Your task to perform on an android device: open app "YouTube Kids" Image 0: 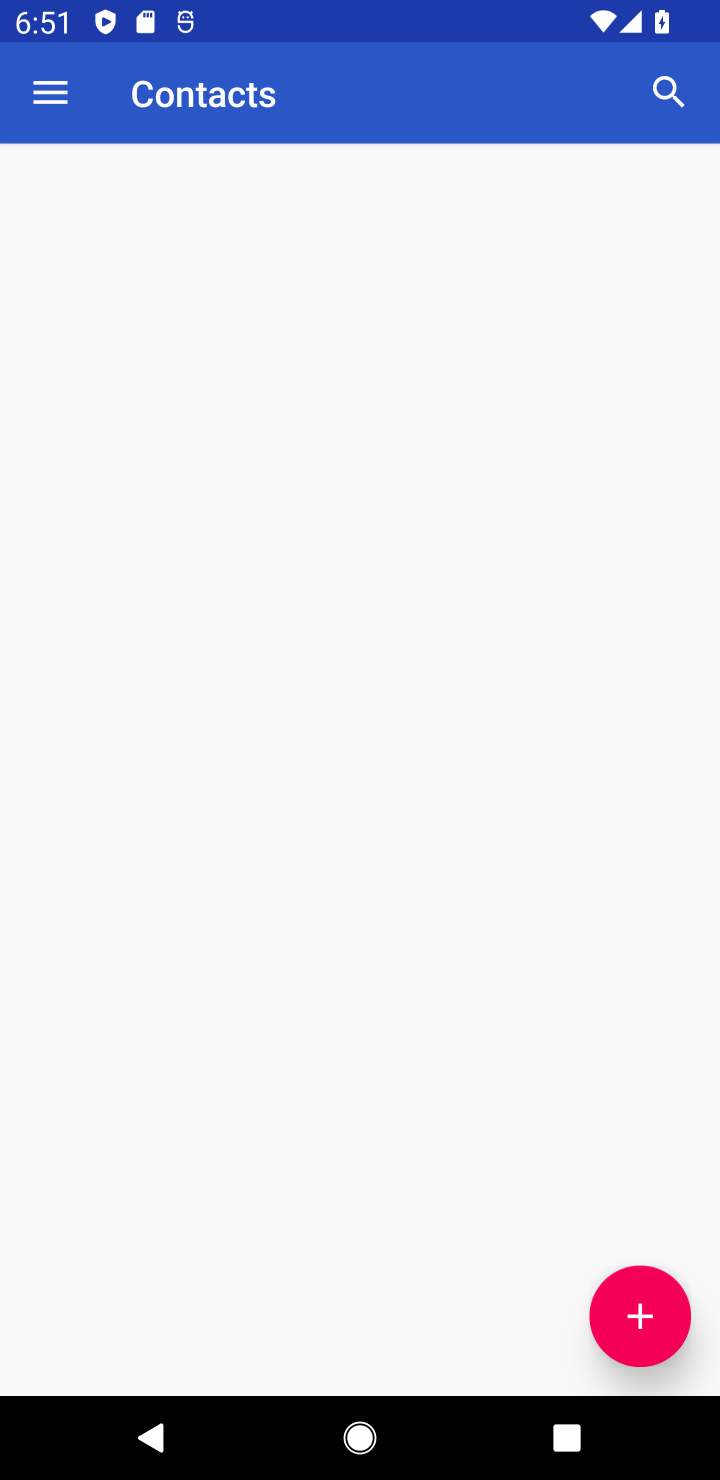
Step 0: press home button
Your task to perform on an android device: open app "YouTube Kids" Image 1: 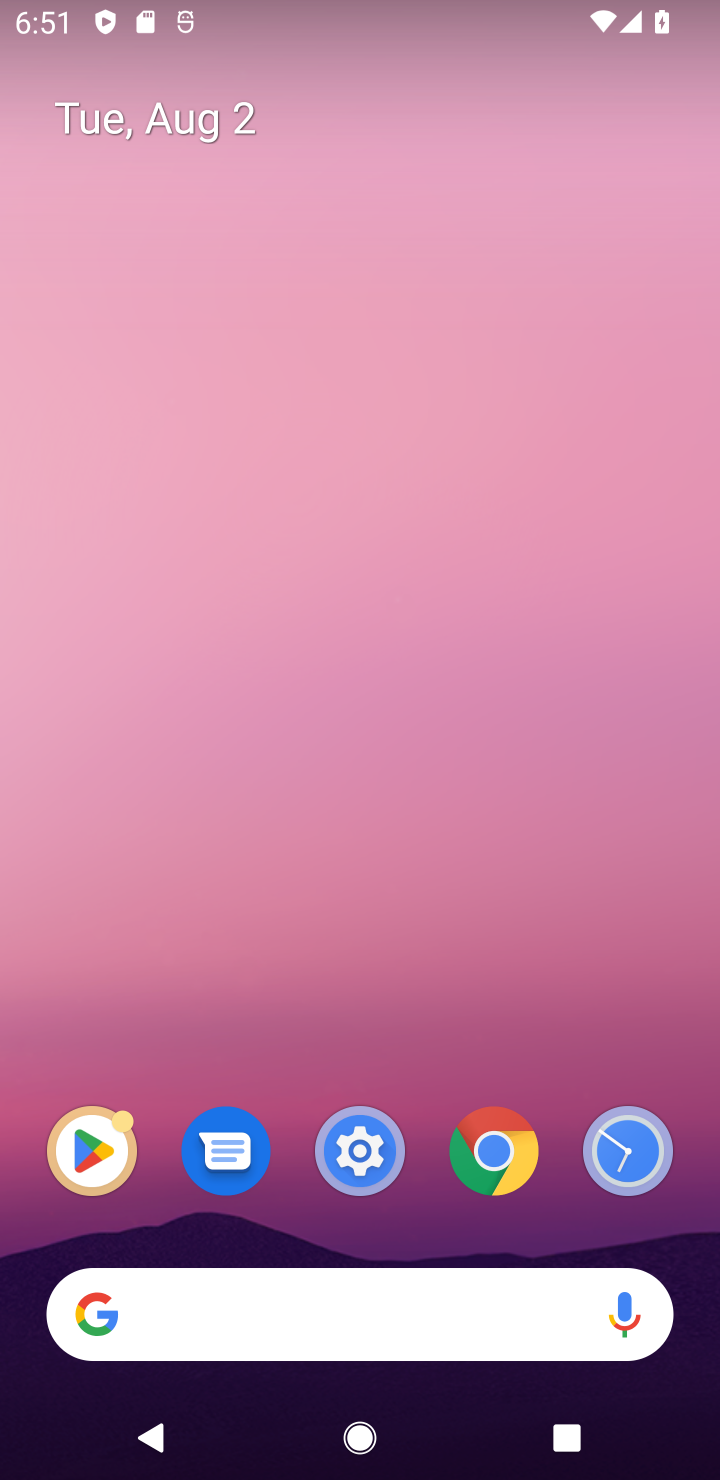
Step 1: drag from (345, 1022) to (362, 103)
Your task to perform on an android device: open app "YouTube Kids" Image 2: 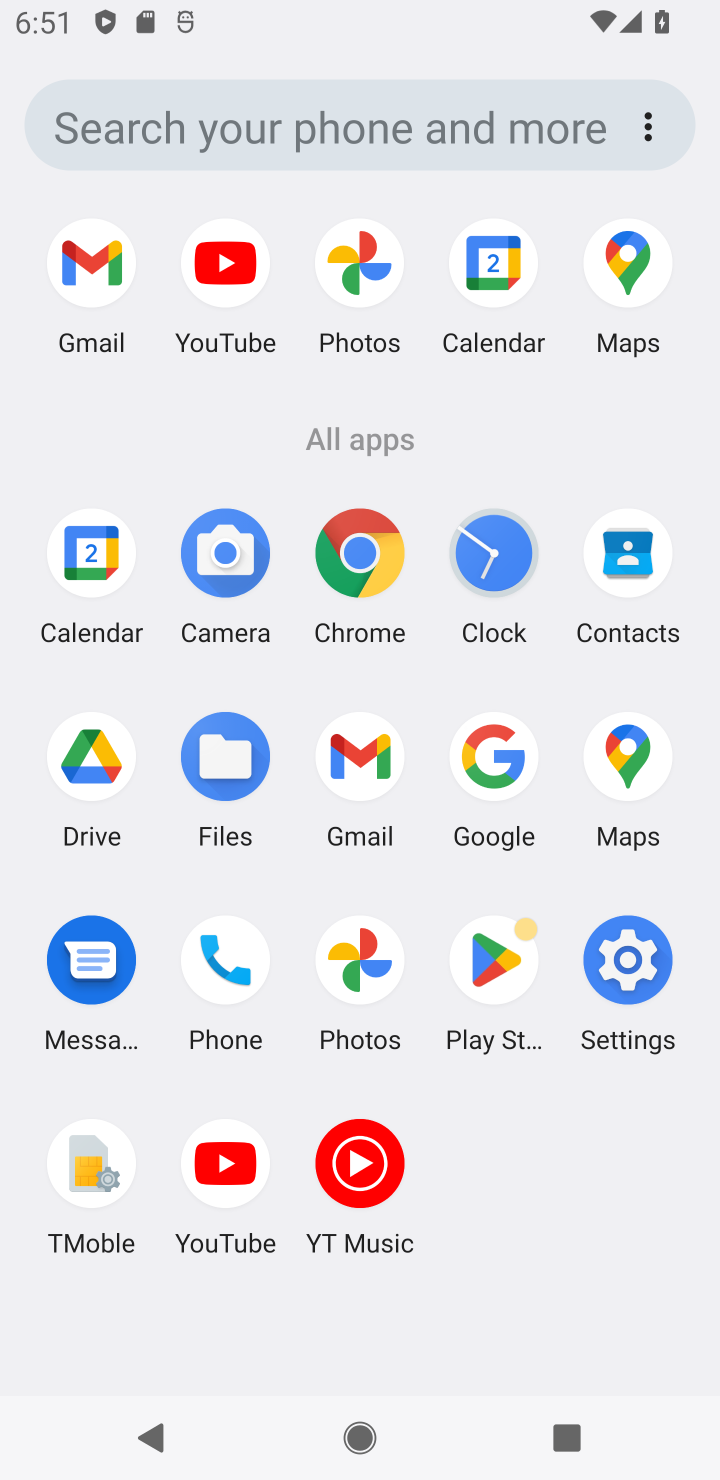
Step 2: press back button
Your task to perform on an android device: open app "YouTube Kids" Image 3: 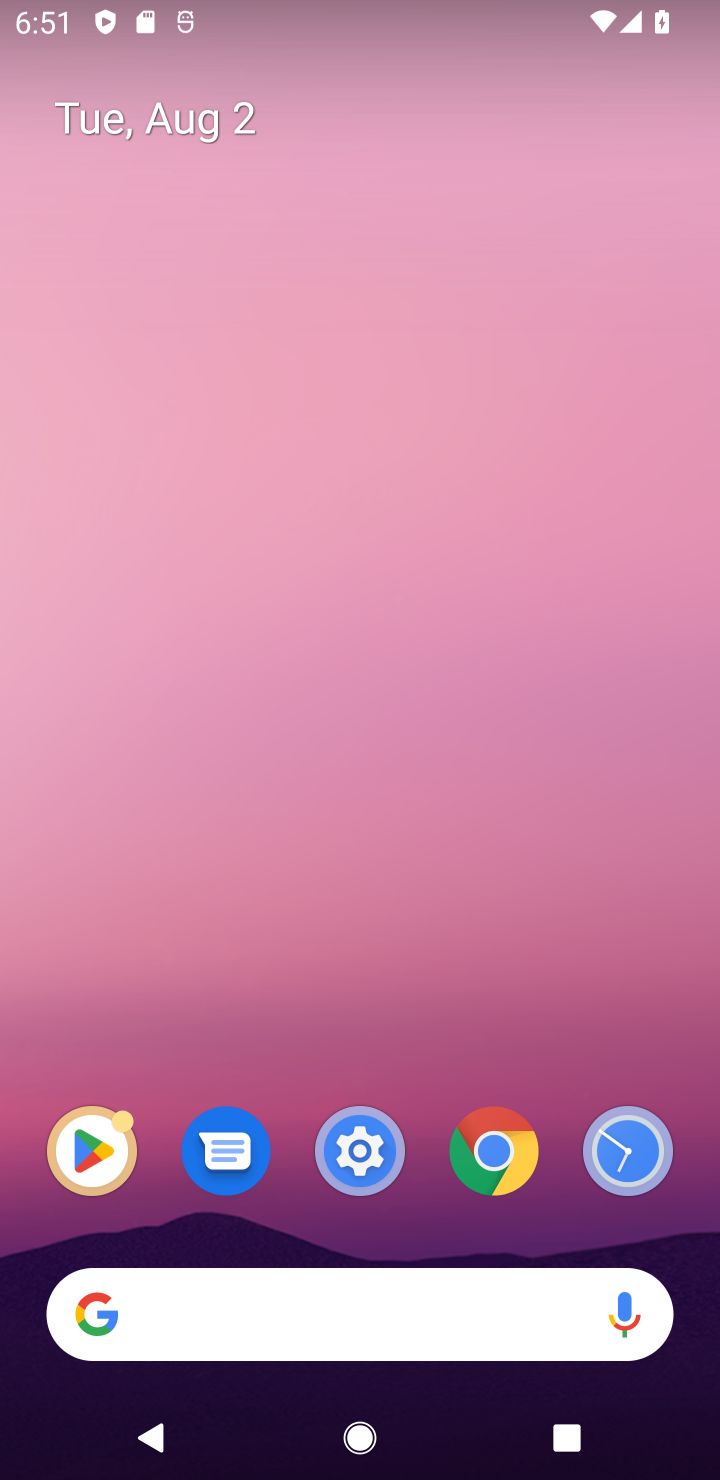
Step 3: drag from (335, 1235) to (454, 297)
Your task to perform on an android device: open app "YouTube Kids" Image 4: 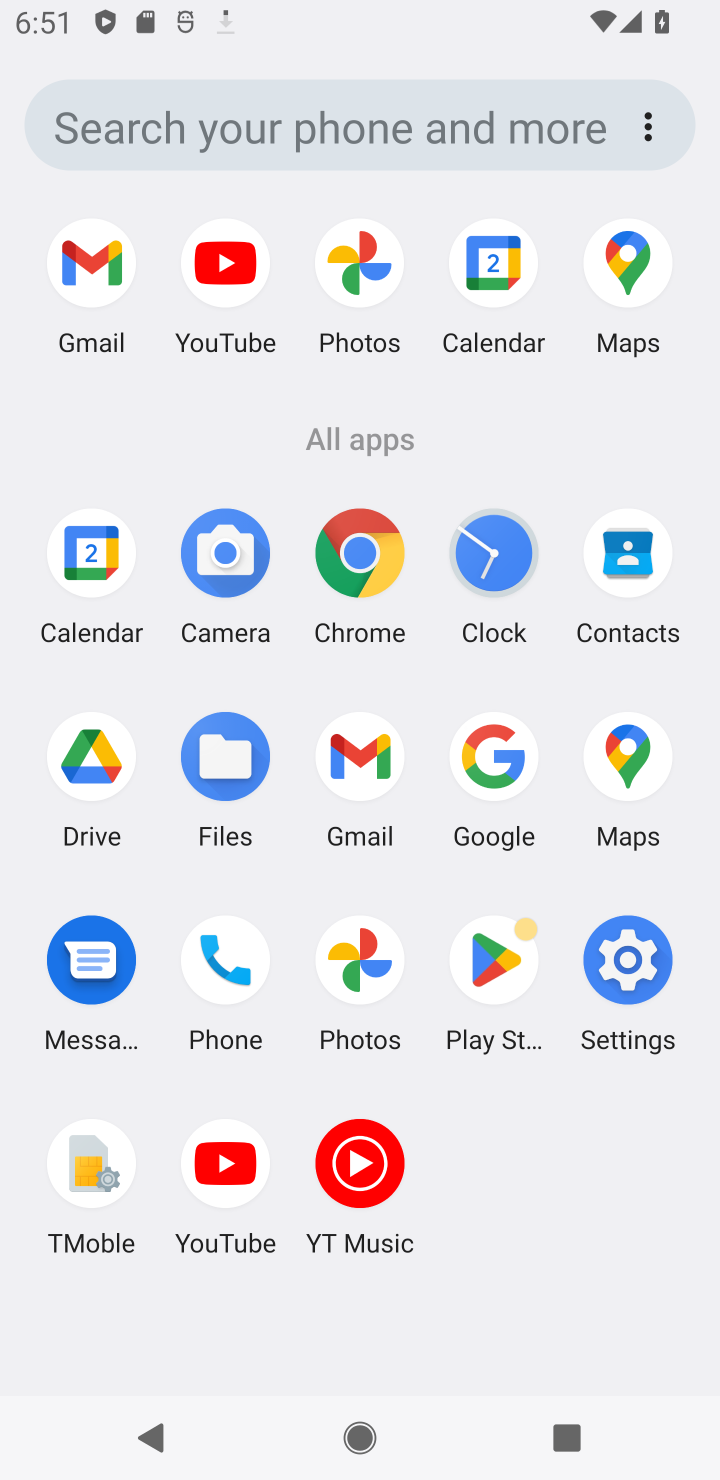
Step 4: click (505, 975)
Your task to perform on an android device: open app "YouTube Kids" Image 5: 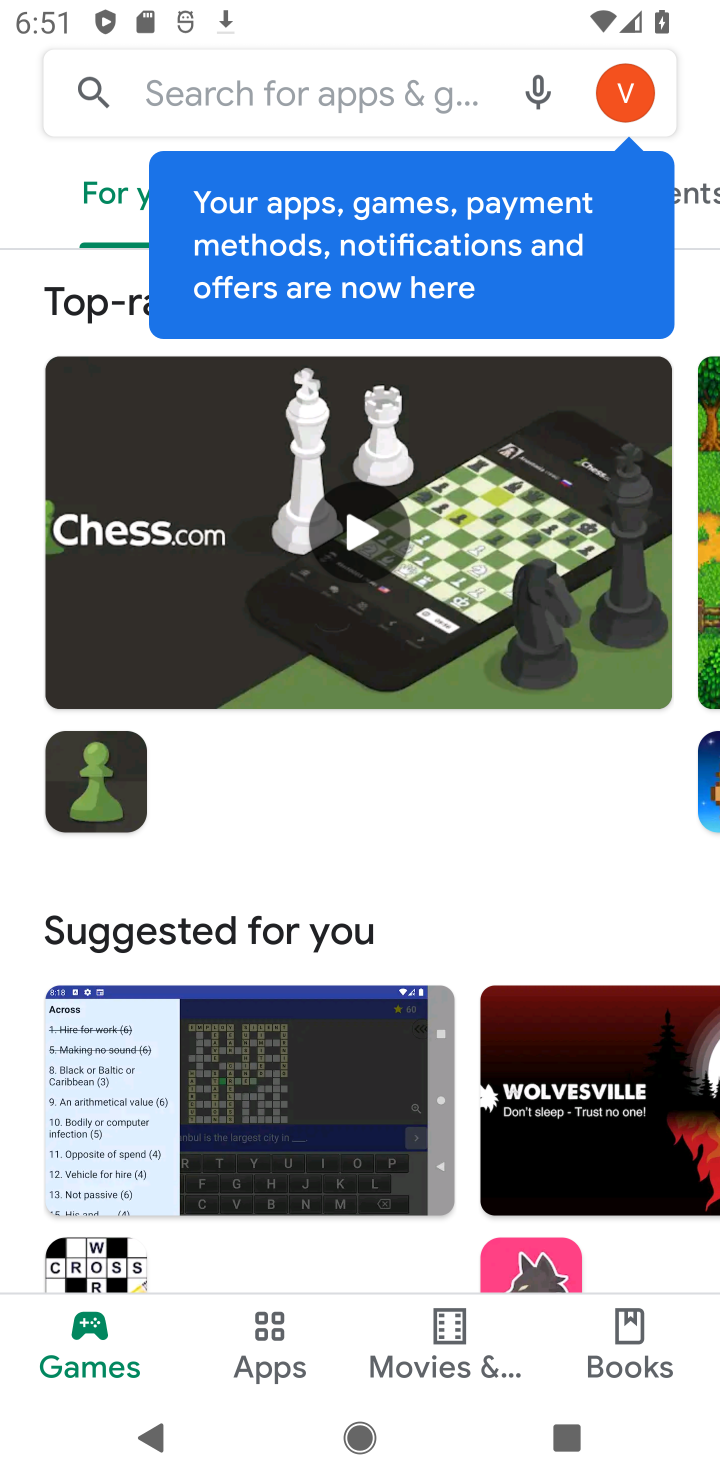
Step 5: click (376, 88)
Your task to perform on an android device: open app "YouTube Kids" Image 6: 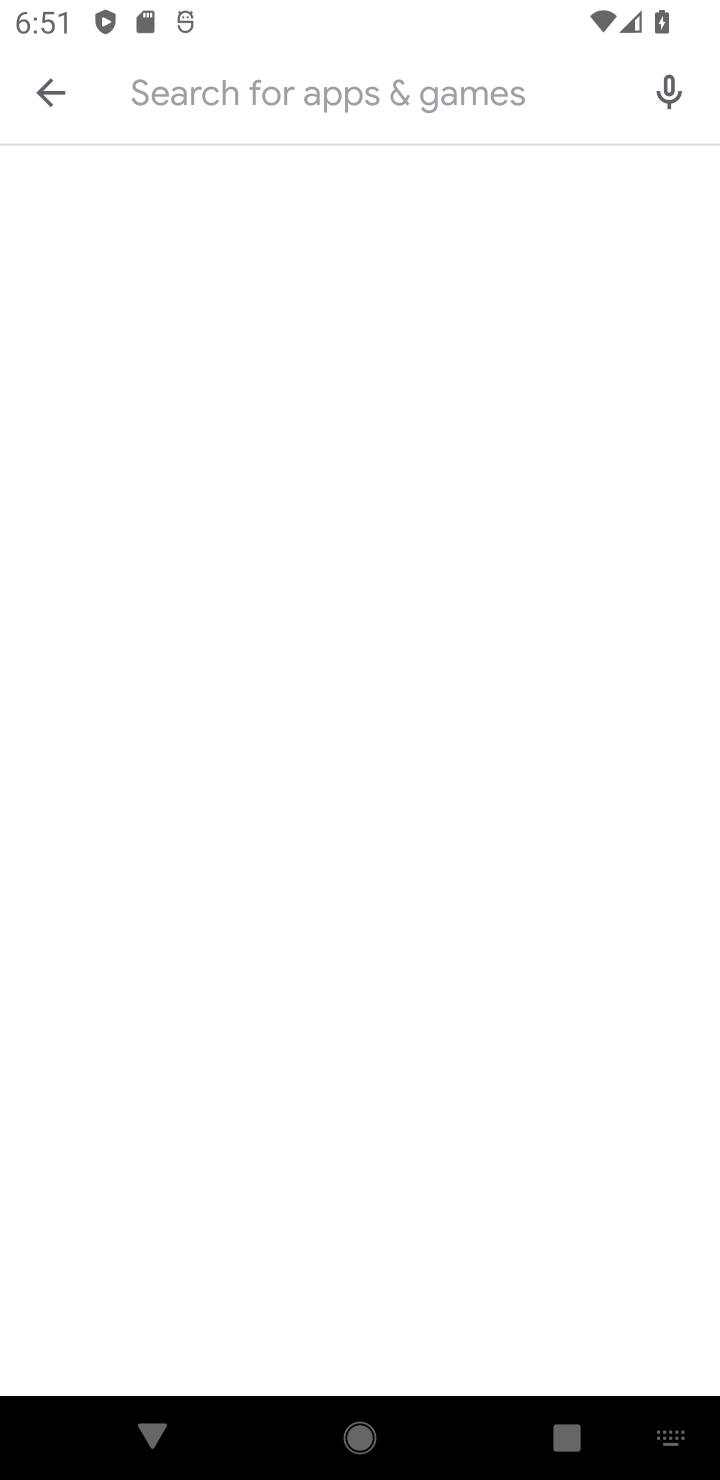
Step 6: type "YouTube Kids"
Your task to perform on an android device: open app "YouTube Kids" Image 7: 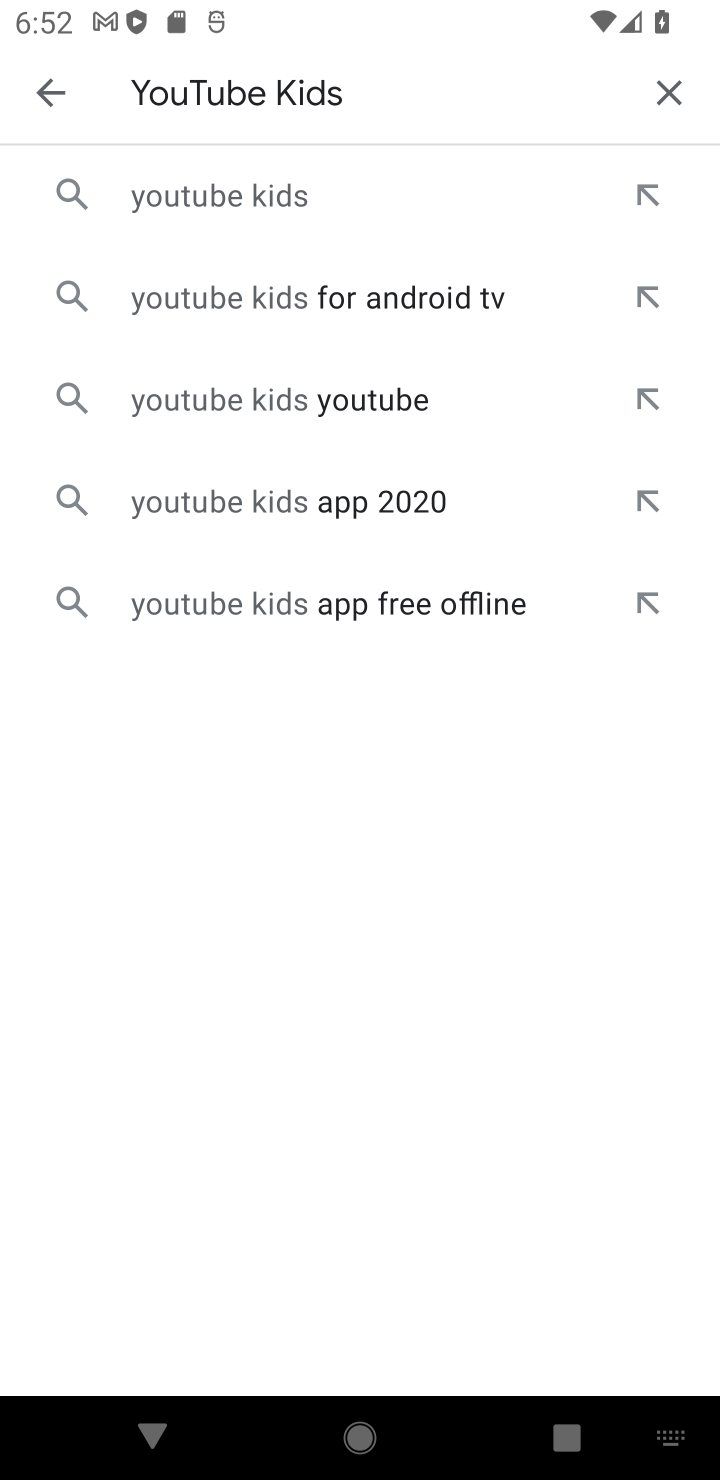
Step 7: click (351, 179)
Your task to perform on an android device: open app "YouTube Kids" Image 8: 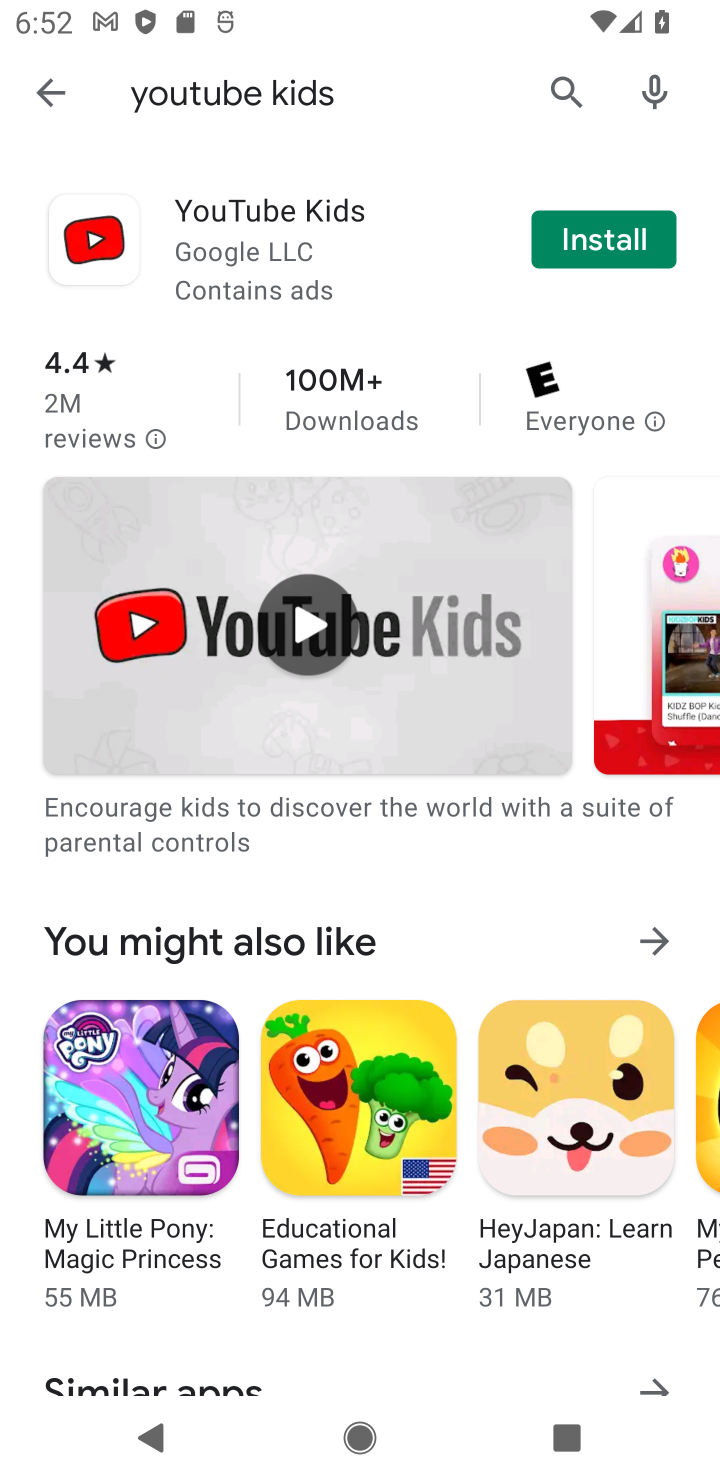
Step 8: task complete